Your task to perform on an android device: turn on the 12-hour format for clock Image 0: 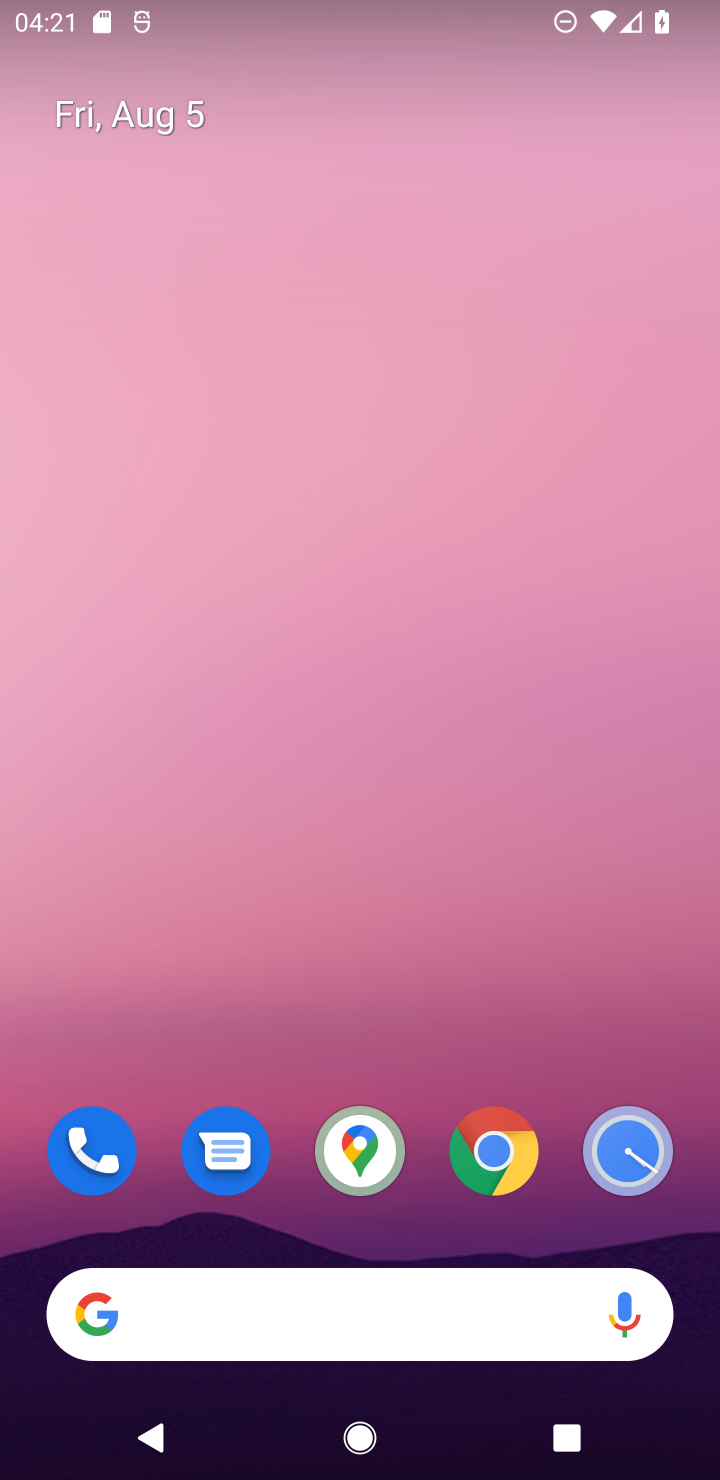
Step 0: click (639, 1135)
Your task to perform on an android device: turn on the 12-hour format for clock Image 1: 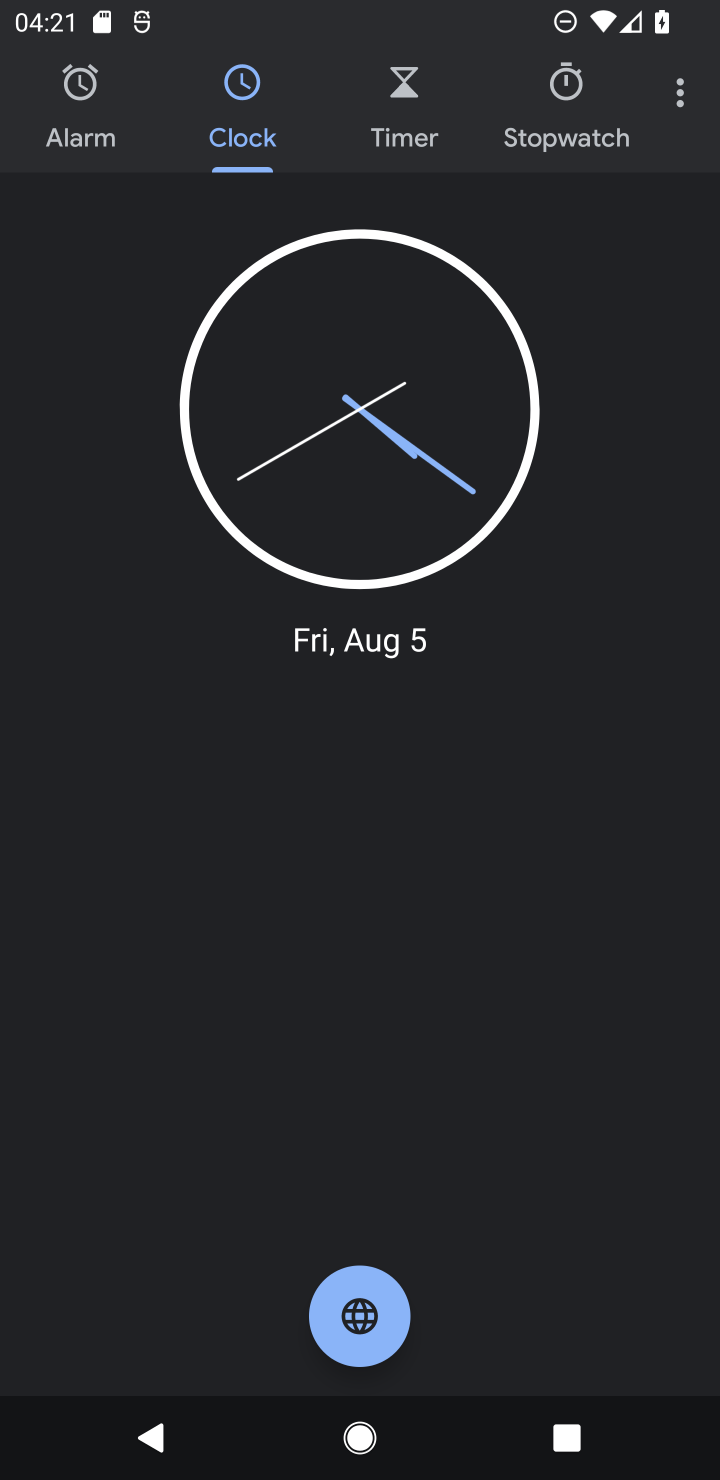
Step 1: click (682, 100)
Your task to perform on an android device: turn on the 12-hour format for clock Image 2: 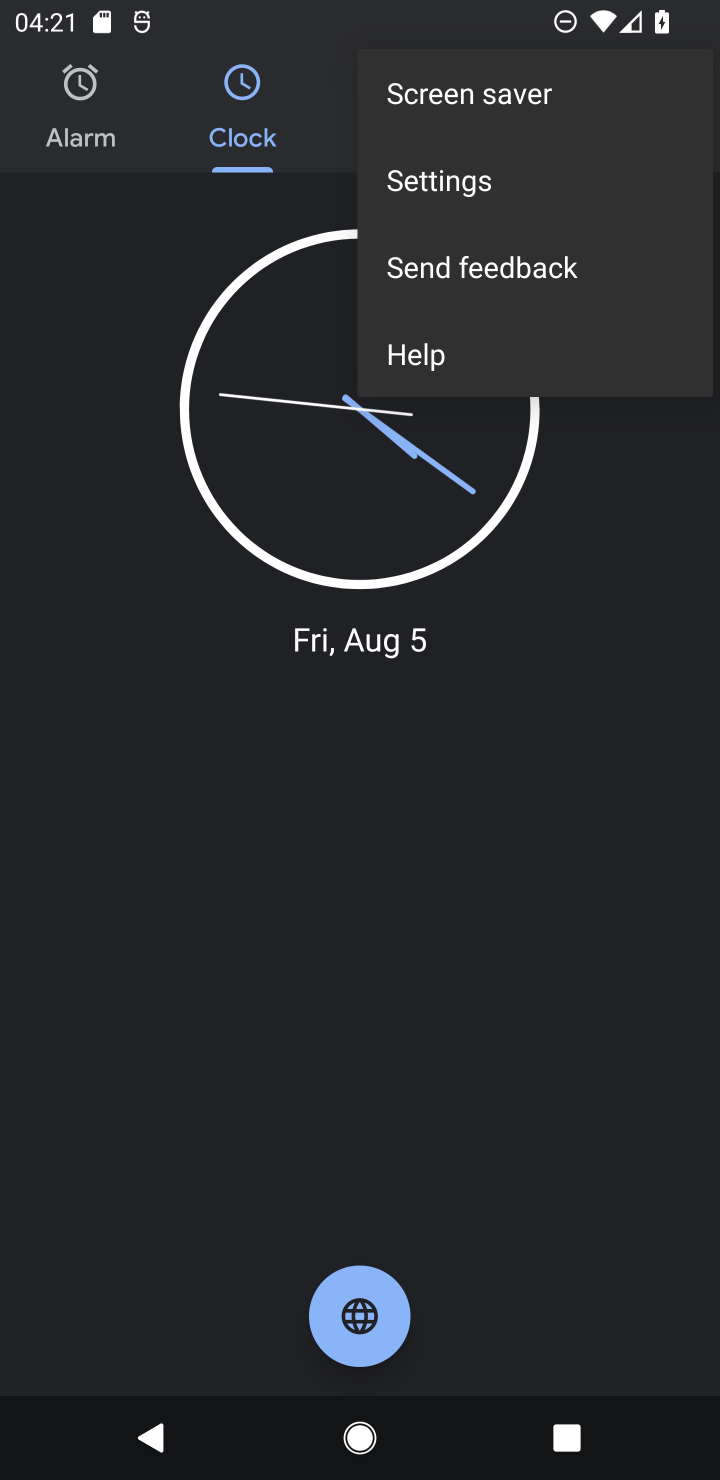
Step 2: click (501, 202)
Your task to perform on an android device: turn on the 12-hour format for clock Image 3: 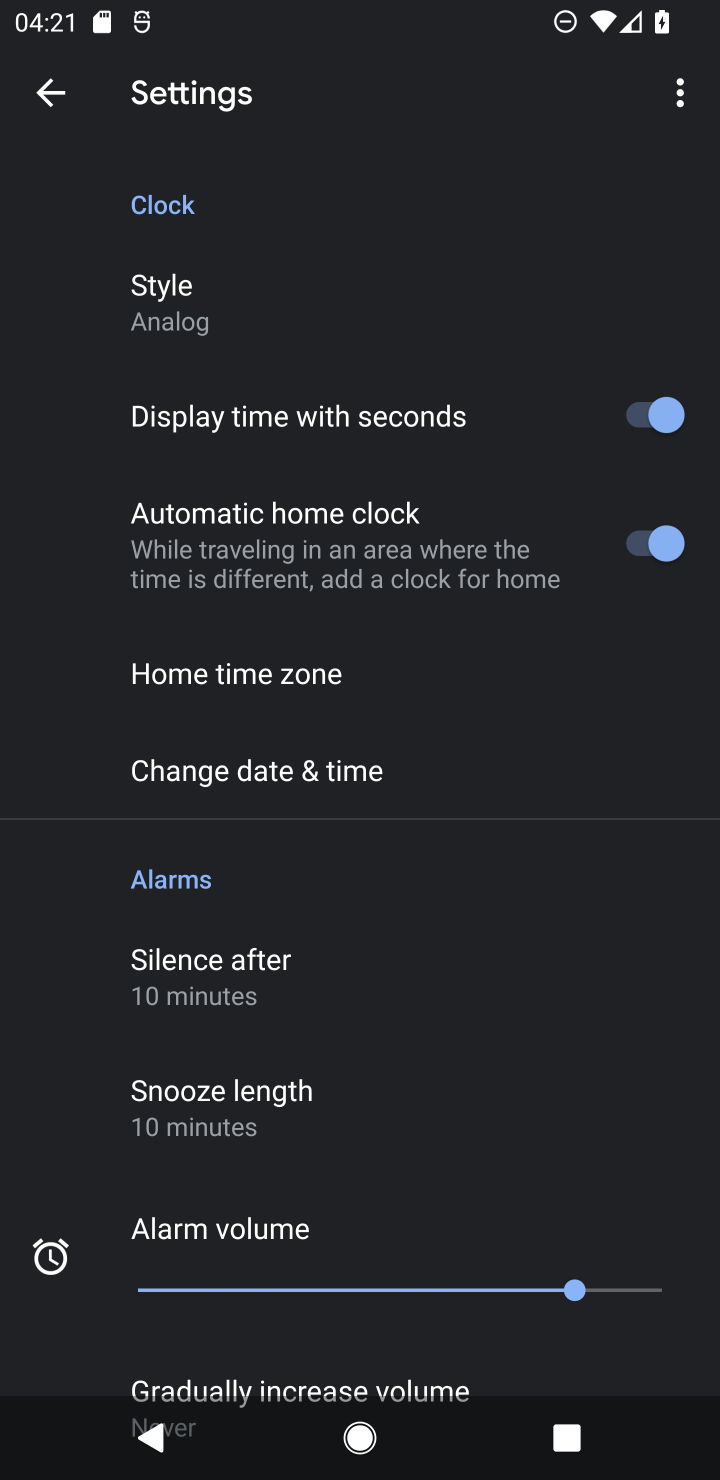
Step 3: click (241, 768)
Your task to perform on an android device: turn on the 12-hour format for clock Image 4: 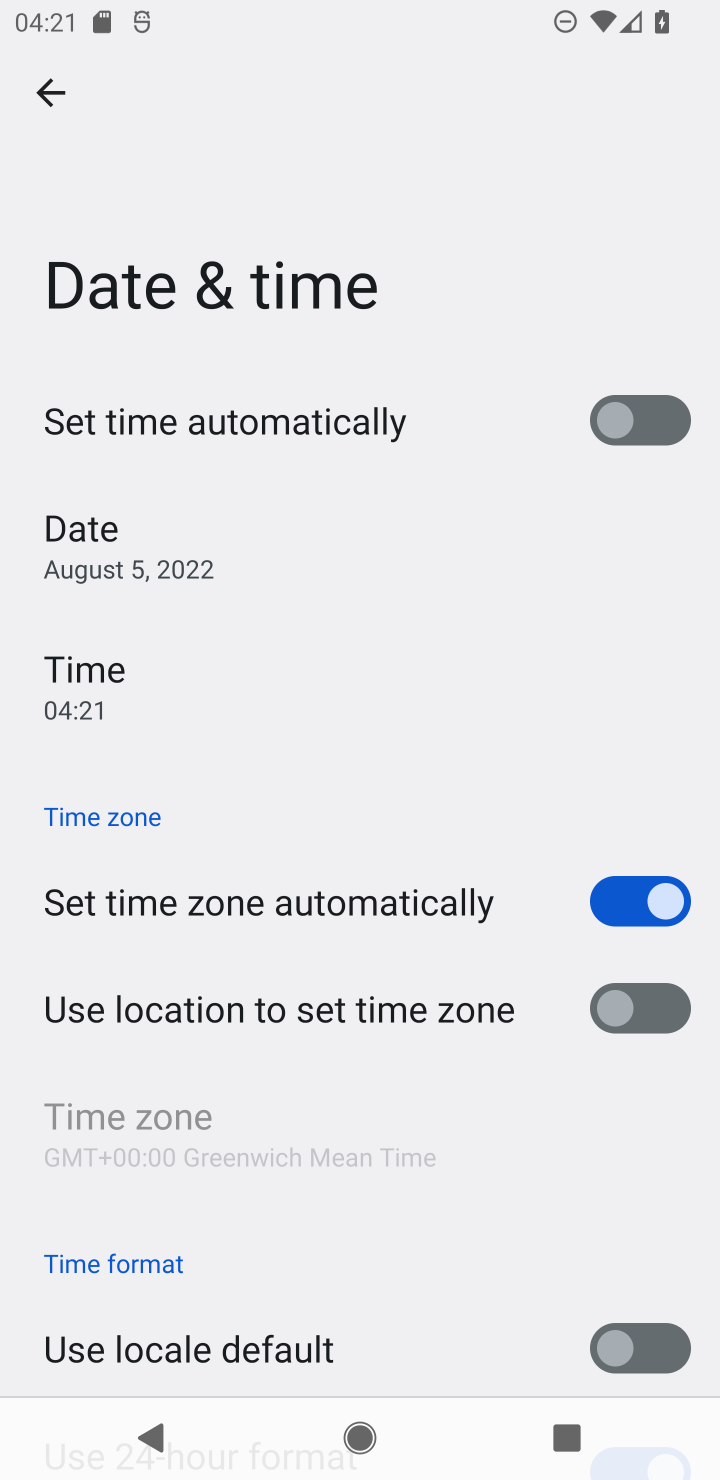
Step 4: drag from (349, 1341) to (315, 592)
Your task to perform on an android device: turn on the 12-hour format for clock Image 5: 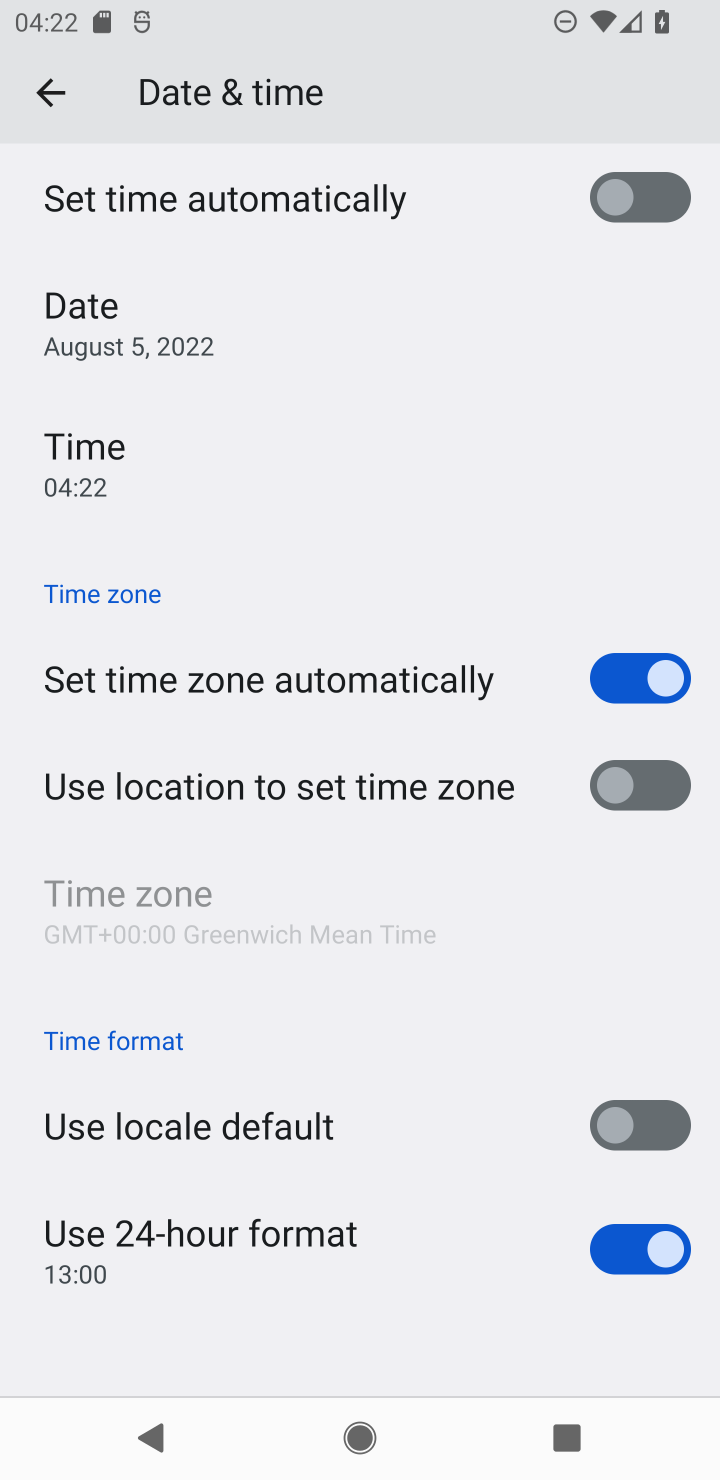
Step 5: click (635, 1117)
Your task to perform on an android device: turn on the 12-hour format for clock Image 6: 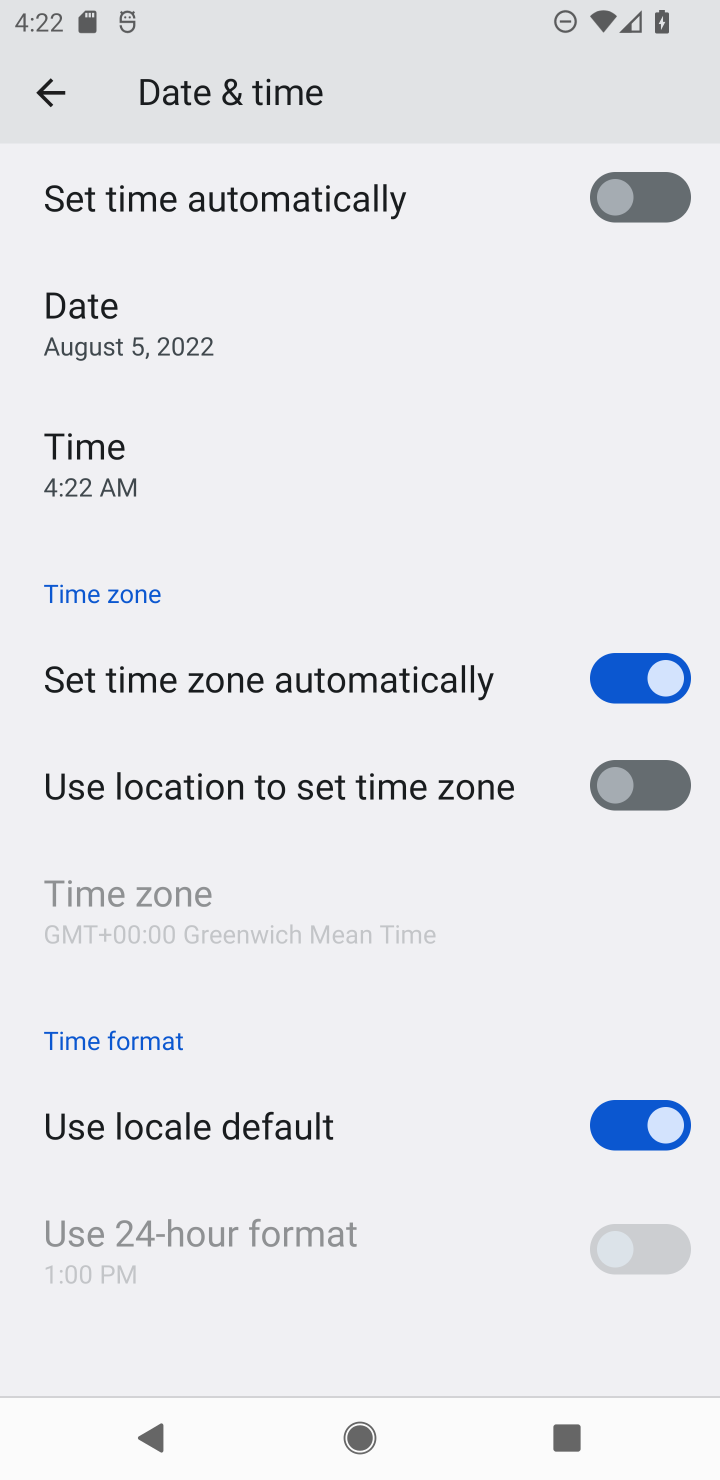
Step 6: task complete